Your task to perform on an android device: Check the news Image 0: 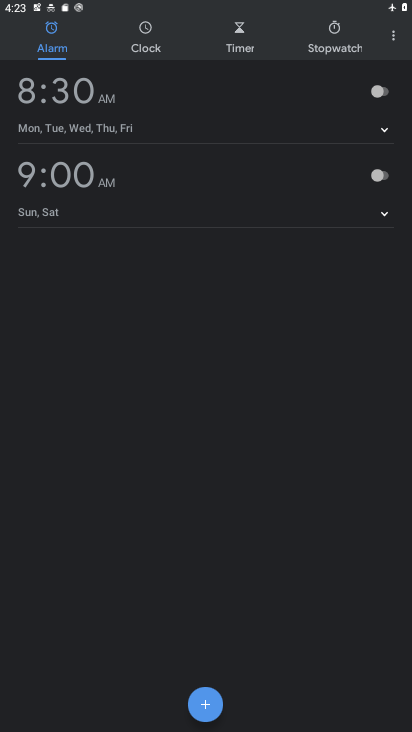
Step 0: press home button
Your task to perform on an android device: Check the news Image 1: 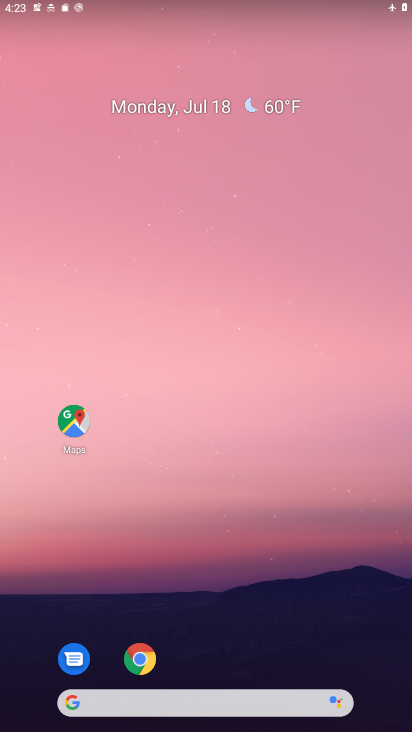
Step 1: drag from (253, 641) to (166, 0)
Your task to perform on an android device: Check the news Image 2: 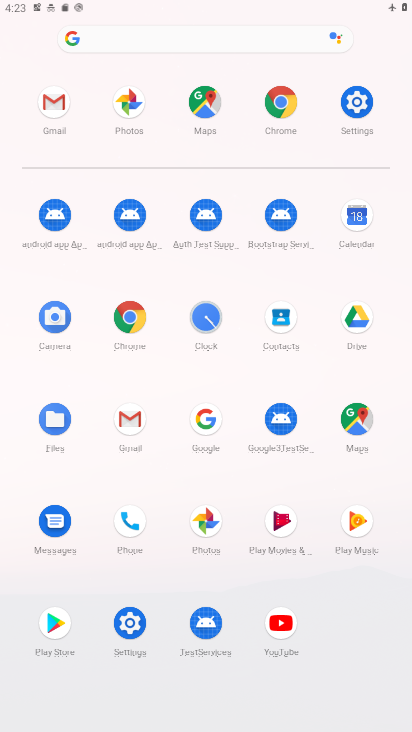
Step 2: click (133, 319)
Your task to perform on an android device: Check the news Image 3: 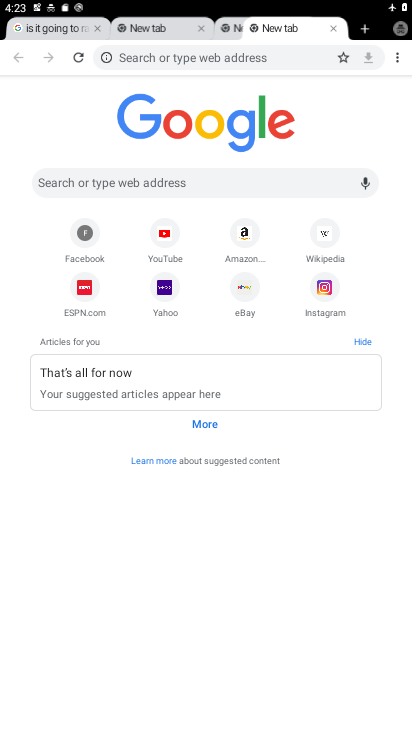
Step 3: click (265, 52)
Your task to perform on an android device: Check the news Image 4: 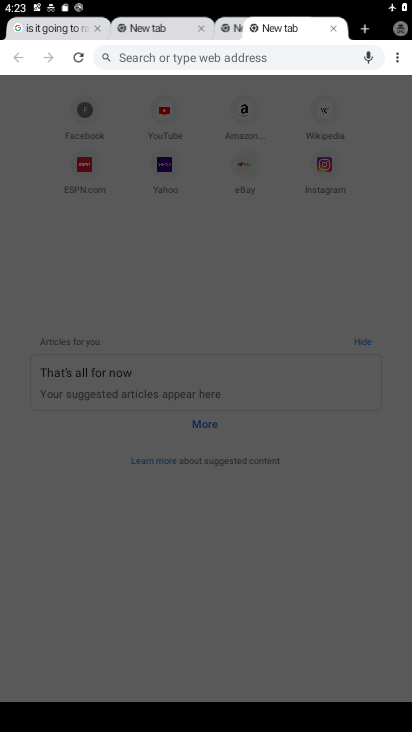
Step 4: type "check the news"
Your task to perform on an android device: Check the news Image 5: 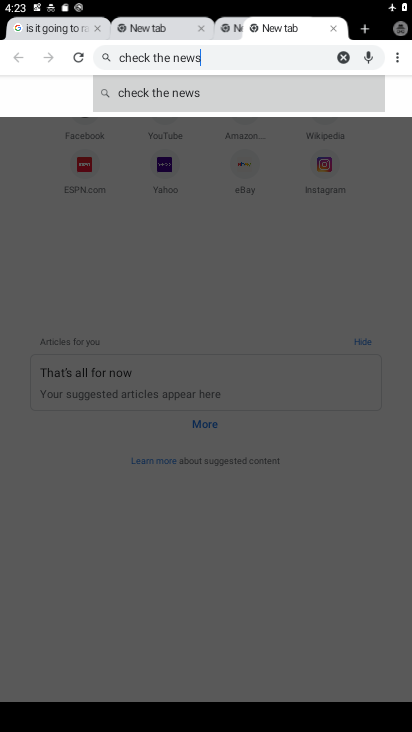
Step 5: click (168, 93)
Your task to perform on an android device: Check the news Image 6: 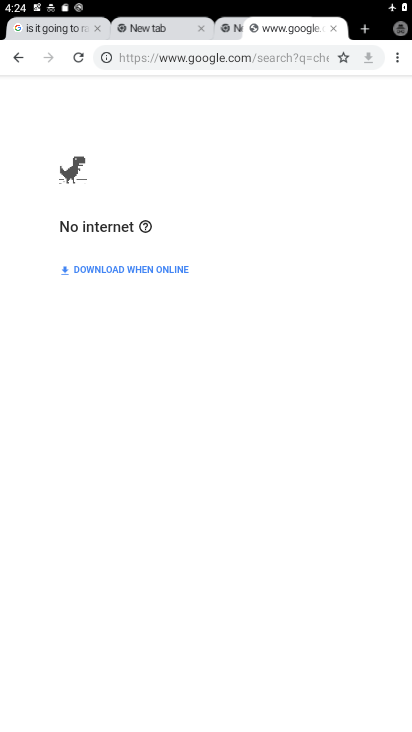
Step 6: task complete